Your task to perform on an android device: stop showing notifications on the lock screen Image 0: 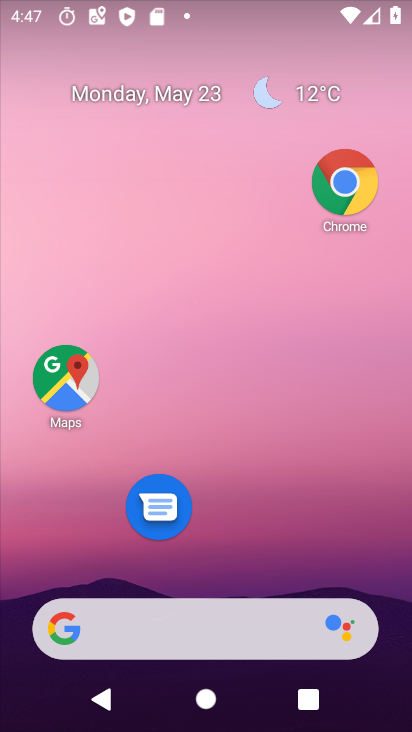
Step 0: drag from (260, 572) to (210, 107)
Your task to perform on an android device: stop showing notifications on the lock screen Image 1: 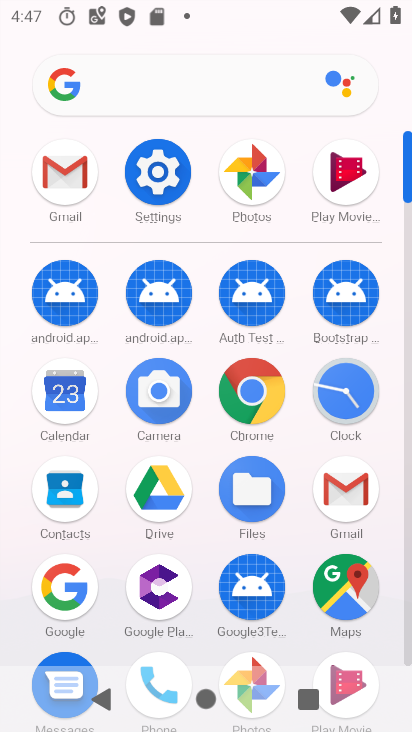
Step 1: click (143, 168)
Your task to perform on an android device: stop showing notifications on the lock screen Image 2: 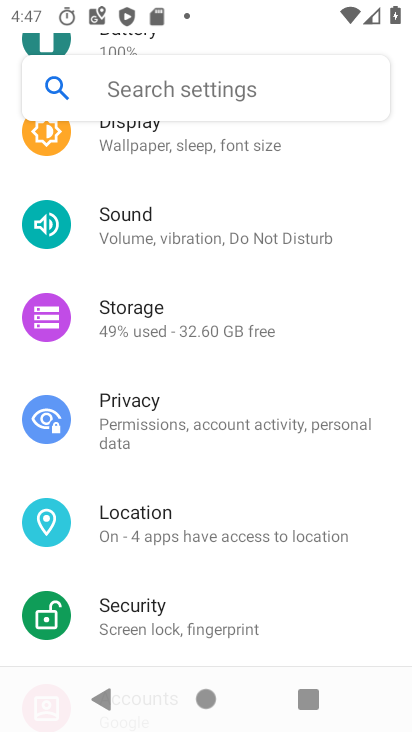
Step 2: drag from (163, 205) to (179, 671)
Your task to perform on an android device: stop showing notifications on the lock screen Image 3: 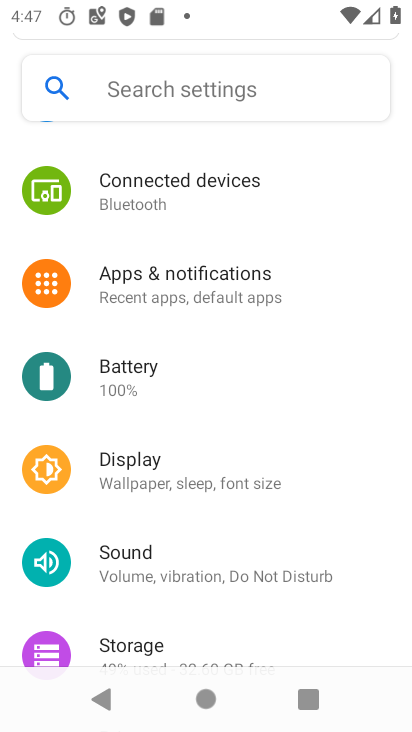
Step 3: click (164, 276)
Your task to perform on an android device: stop showing notifications on the lock screen Image 4: 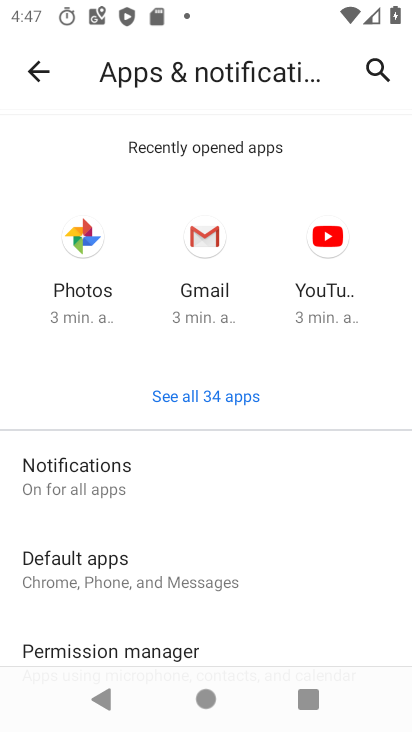
Step 4: click (178, 490)
Your task to perform on an android device: stop showing notifications on the lock screen Image 5: 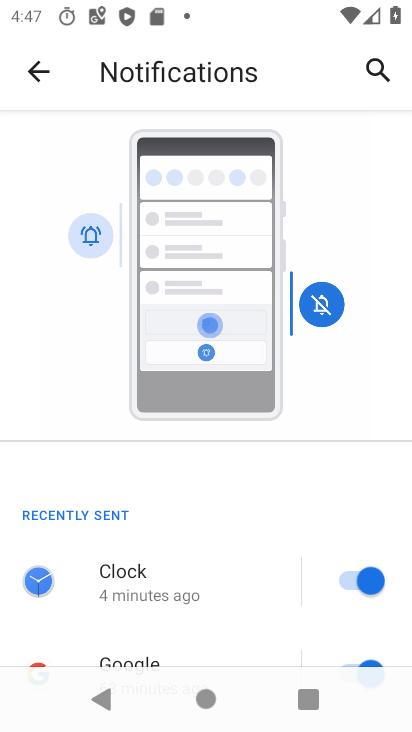
Step 5: drag from (126, 617) to (196, 180)
Your task to perform on an android device: stop showing notifications on the lock screen Image 6: 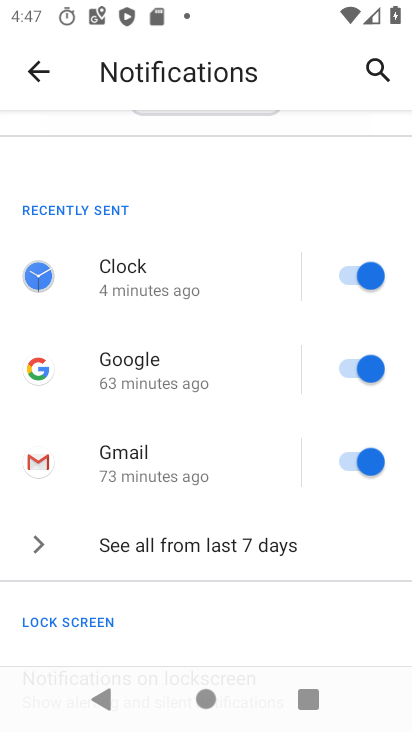
Step 6: drag from (137, 584) to (196, 200)
Your task to perform on an android device: stop showing notifications on the lock screen Image 7: 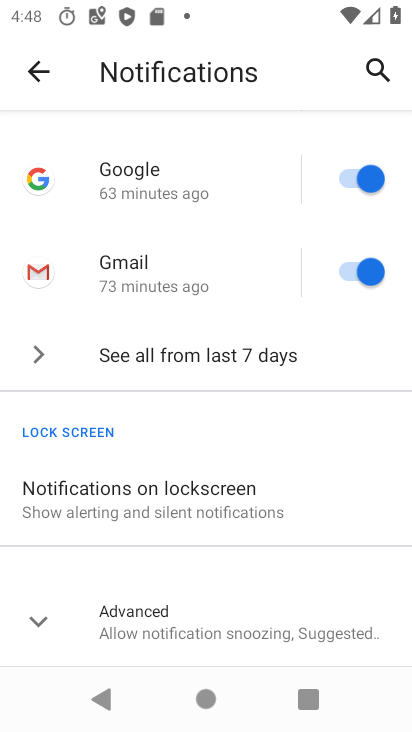
Step 7: click (183, 508)
Your task to perform on an android device: stop showing notifications on the lock screen Image 8: 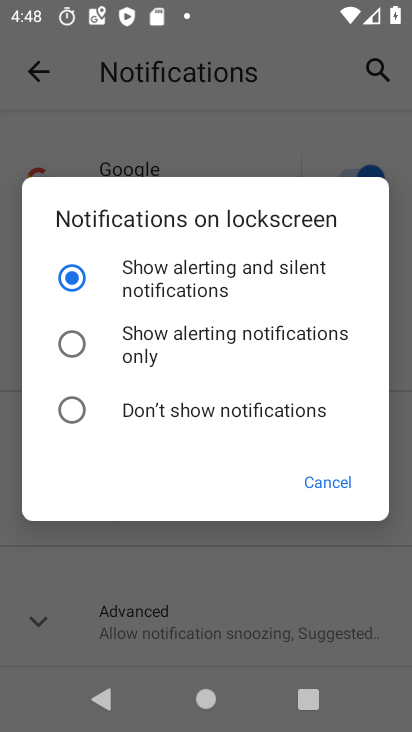
Step 8: click (150, 422)
Your task to perform on an android device: stop showing notifications on the lock screen Image 9: 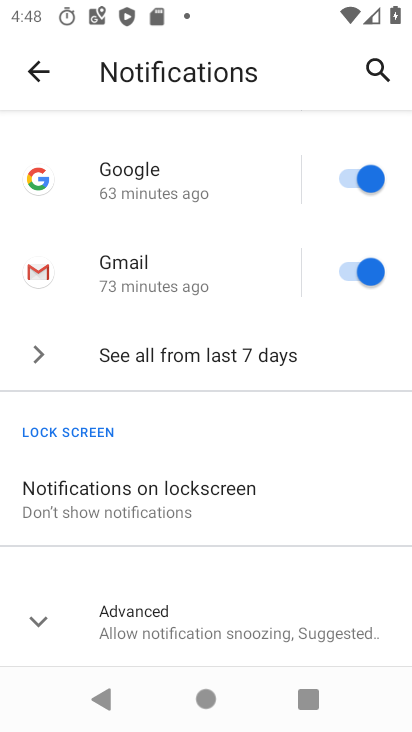
Step 9: task complete